Your task to perform on an android device: turn notification dots on Image 0: 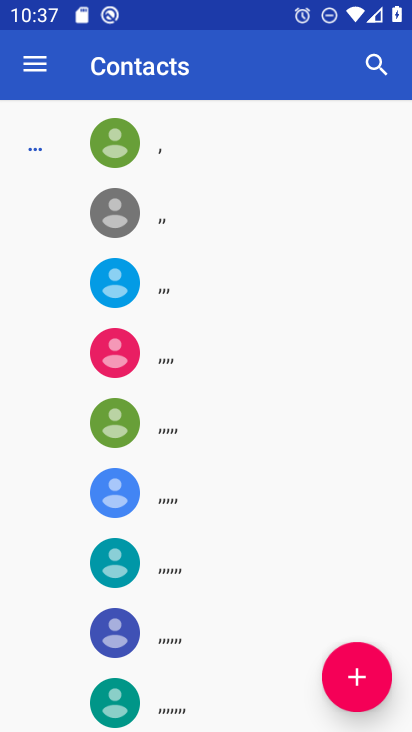
Step 0: press home button
Your task to perform on an android device: turn notification dots on Image 1: 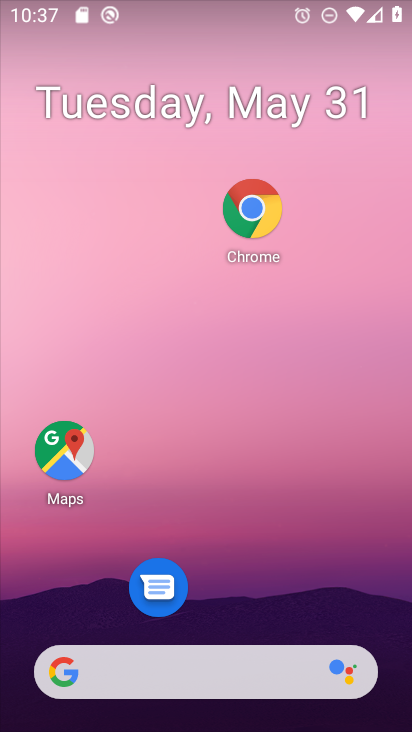
Step 1: drag from (203, 633) to (225, 0)
Your task to perform on an android device: turn notification dots on Image 2: 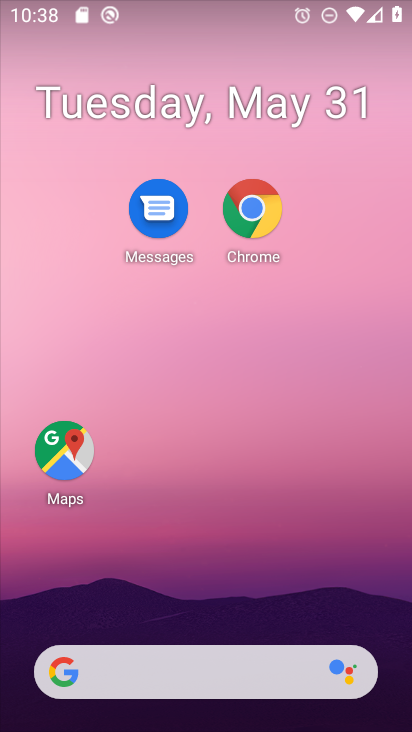
Step 2: drag from (216, 606) to (210, 51)
Your task to perform on an android device: turn notification dots on Image 3: 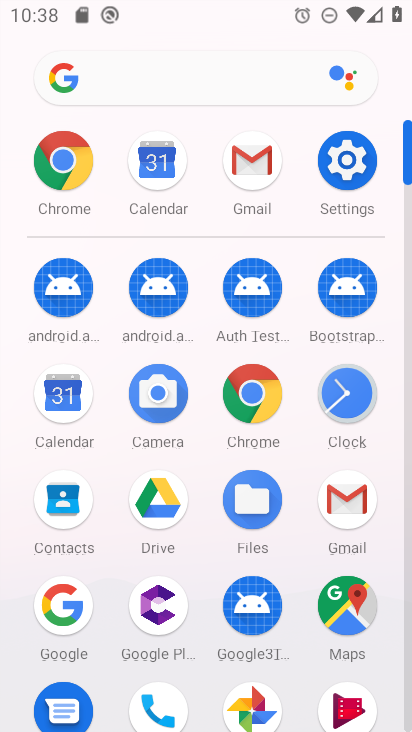
Step 3: click (342, 165)
Your task to perform on an android device: turn notification dots on Image 4: 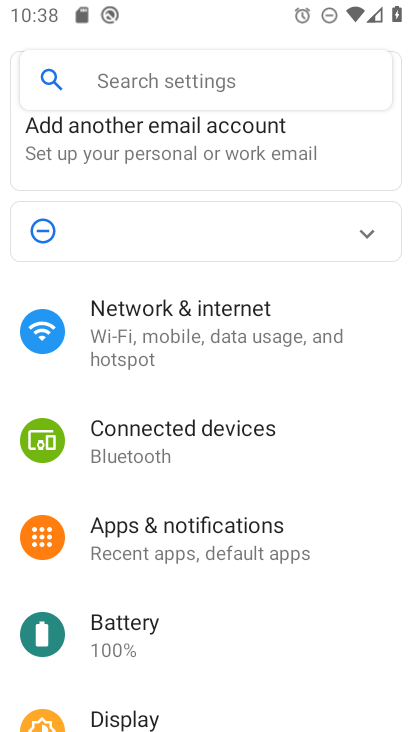
Step 4: click (294, 534)
Your task to perform on an android device: turn notification dots on Image 5: 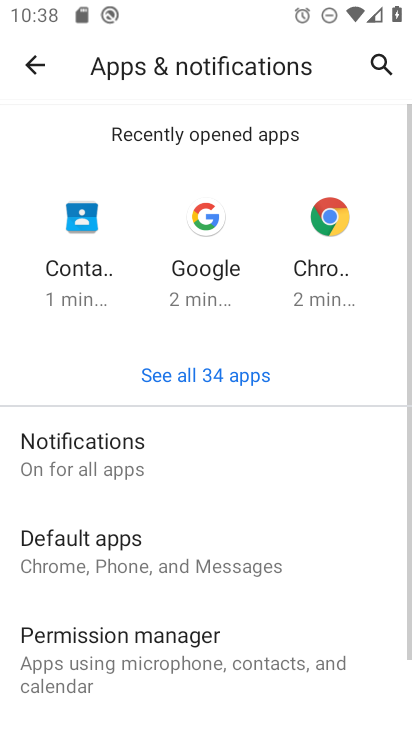
Step 5: click (156, 442)
Your task to perform on an android device: turn notification dots on Image 6: 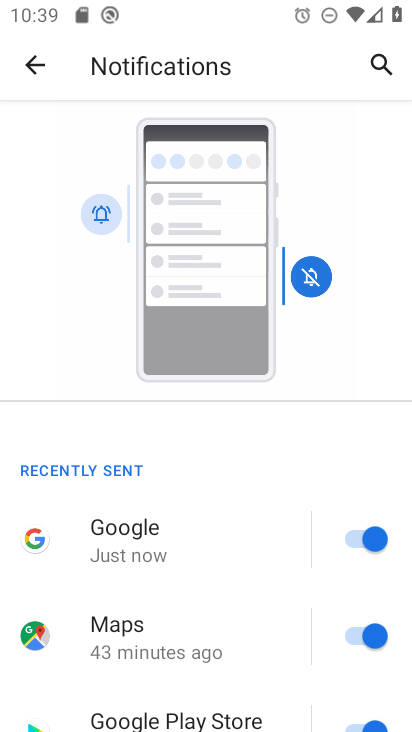
Step 6: drag from (287, 714) to (273, 111)
Your task to perform on an android device: turn notification dots on Image 7: 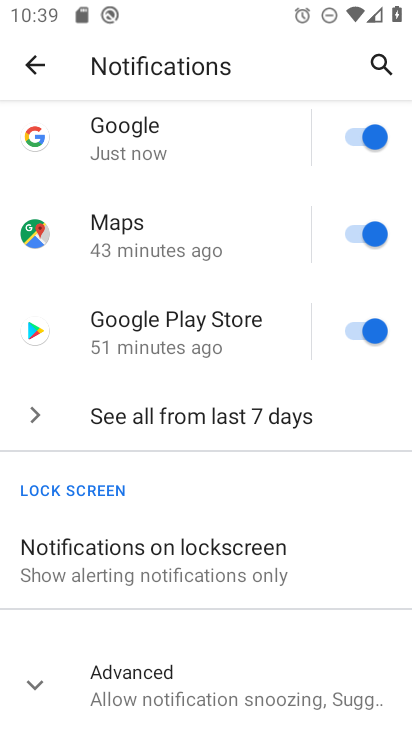
Step 7: click (30, 677)
Your task to perform on an android device: turn notification dots on Image 8: 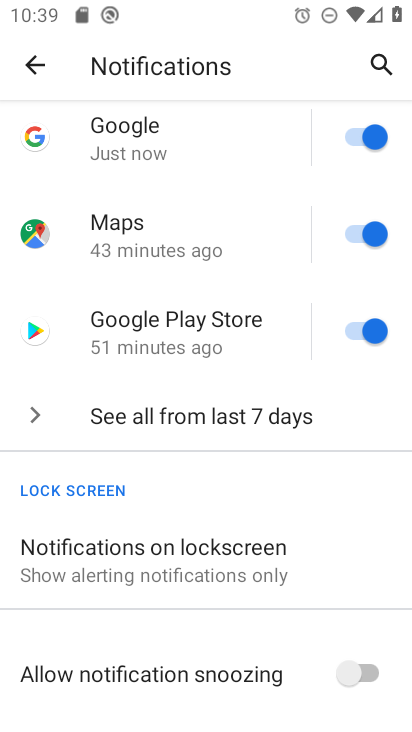
Step 8: task complete